Your task to perform on an android device: turn notification dots on Image 0: 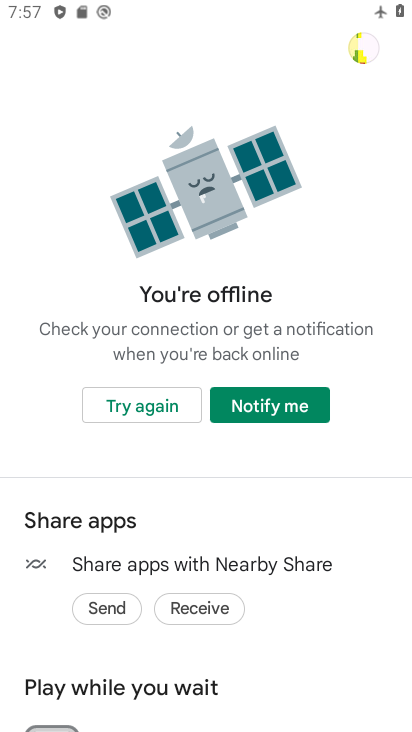
Step 0: press home button
Your task to perform on an android device: turn notification dots on Image 1: 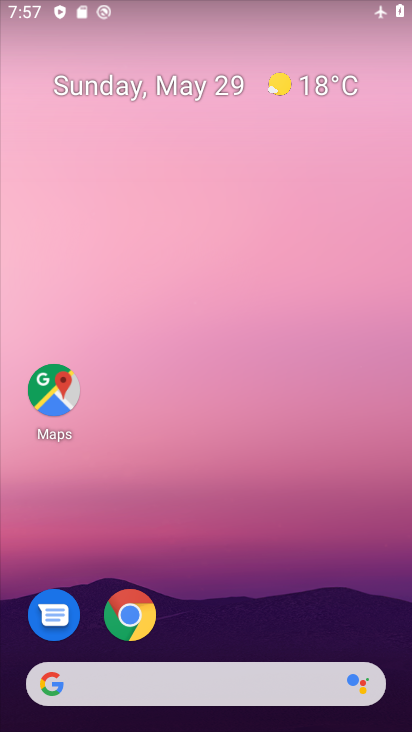
Step 1: drag from (118, 731) to (219, 29)
Your task to perform on an android device: turn notification dots on Image 2: 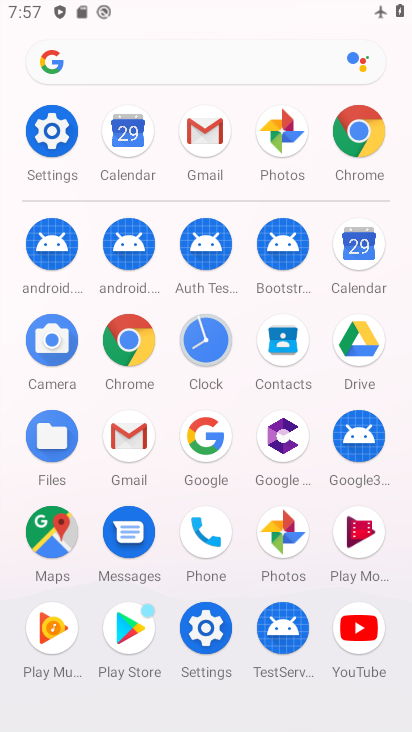
Step 2: click (207, 646)
Your task to perform on an android device: turn notification dots on Image 3: 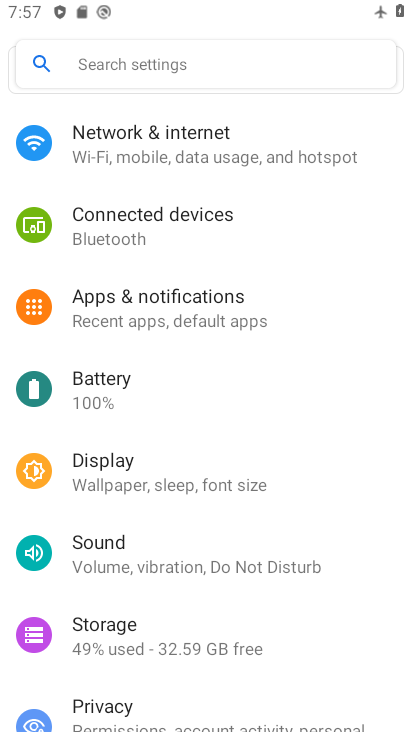
Step 3: drag from (161, 679) to (200, 316)
Your task to perform on an android device: turn notification dots on Image 4: 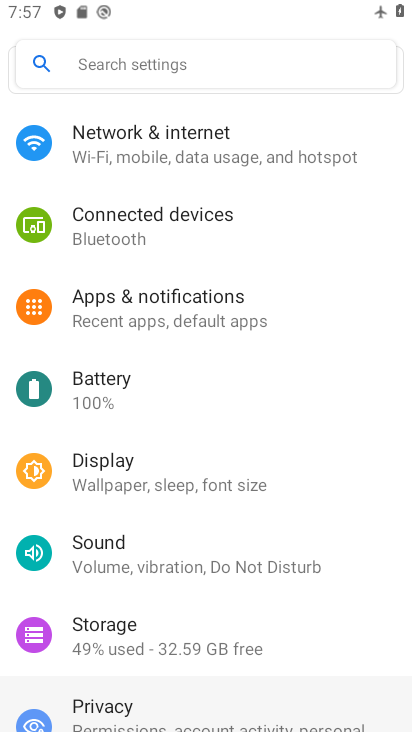
Step 4: click (200, 308)
Your task to perform on an android device: turn notification dots on Image 5: 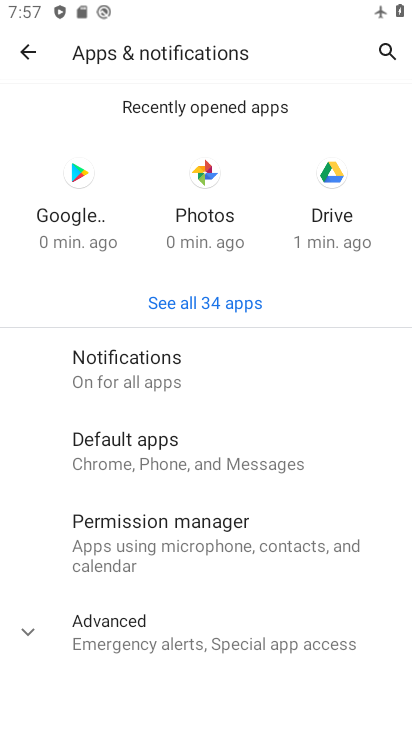
Step 5: click (209, 638)
Your task to perform on an android device: turn notification dots on Image 6: 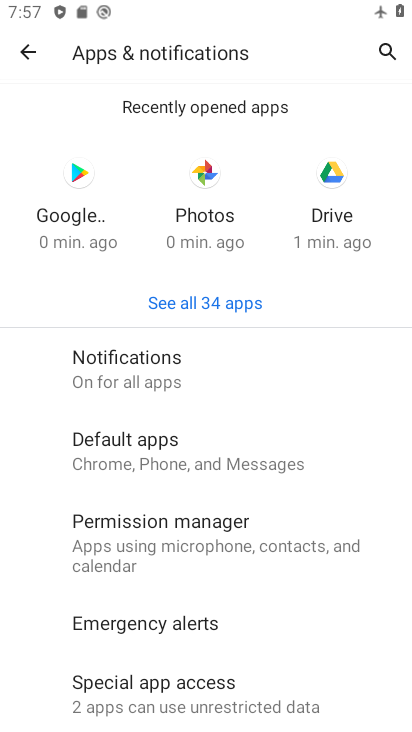
Step 6: click (139, 380)
Your task to perform on an android device: turn notification dots on Image 7: 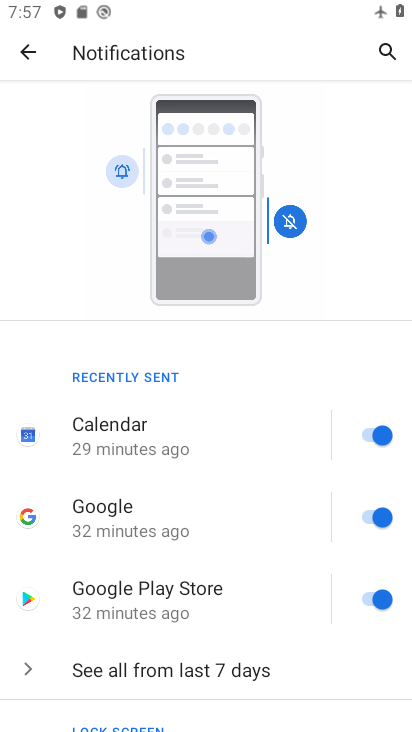
Step 7: drag from (185, 645) to (175, 303)
Your task to perform on an android device: turn notification dots on Image 8: 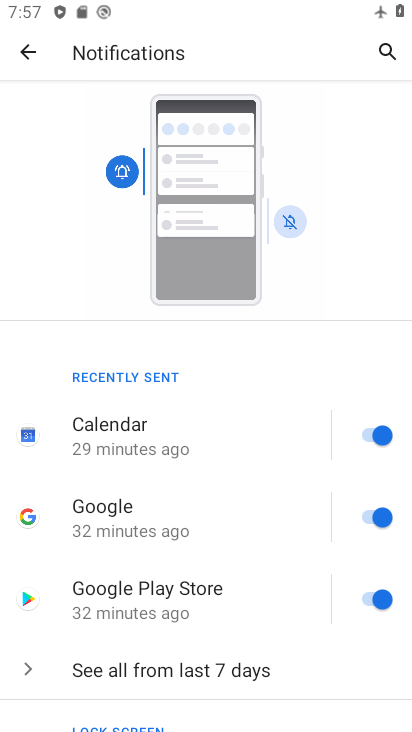
Step 8: drag from (127, 708) to (165, 360)
Your task to perform on an android device: turn notification dots on Image 9: 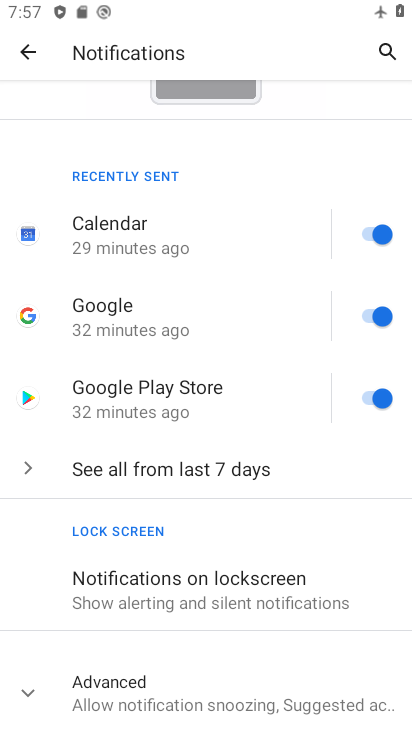
Step 9: click (127, 691)
Your task to perform on an android device: turn notification dots on Image 10: 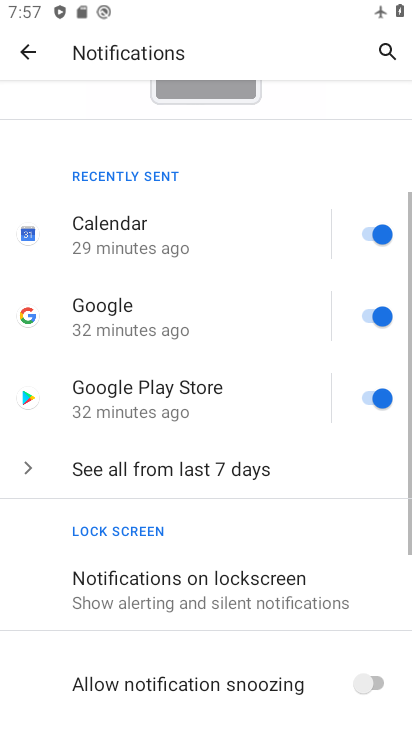
Step 10: task complete